Your task to perform on an android device: Go to Yahoo.com Image 0: 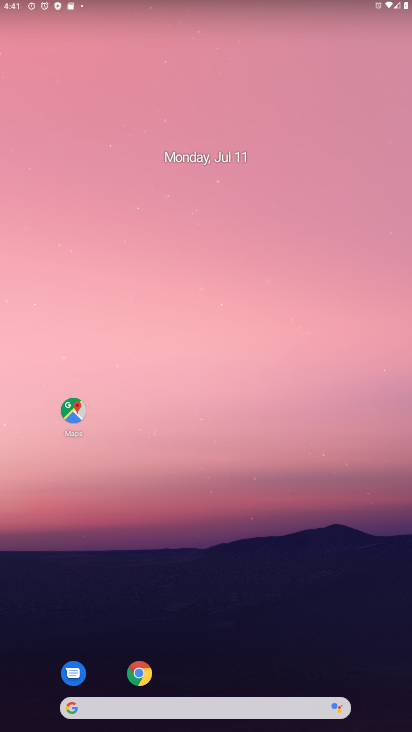
Step 0: drag from (250, 664) to (182, 176)
Your task to perform on an android device: Go to Yahoo.com Image 1: 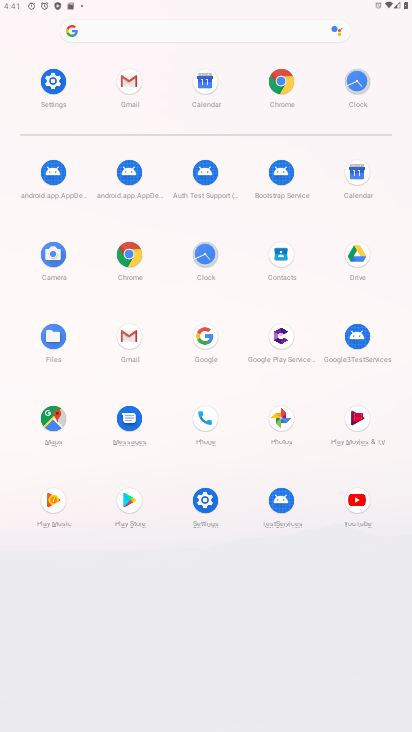
Step 1: click (123, 248)
Your task to perform on an android device: Go to Yahoo.com Image 2: 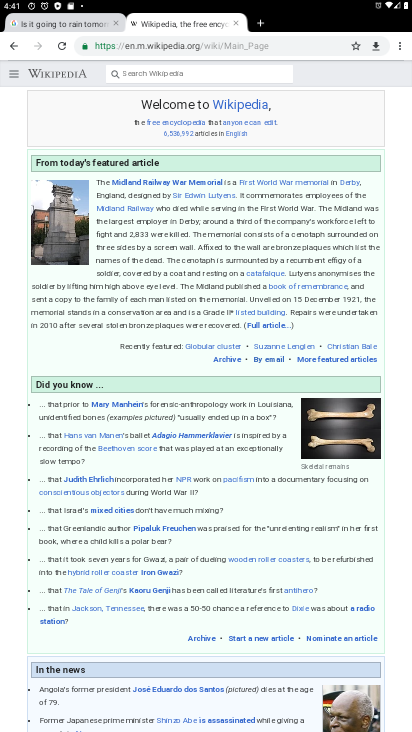
Step 2: click (135, 44)
Your task to perform on an android device: Go to Yahoo.com Image 3: 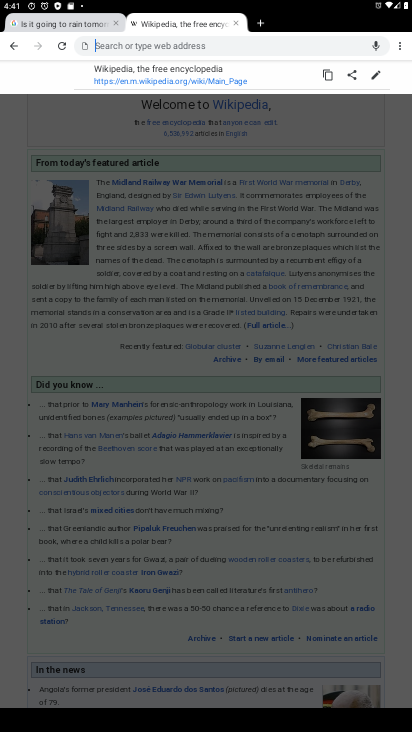
Step 3: type "Yahoo.com"
Your task to perform on an android device: Go to Yahoo.com Image 4: 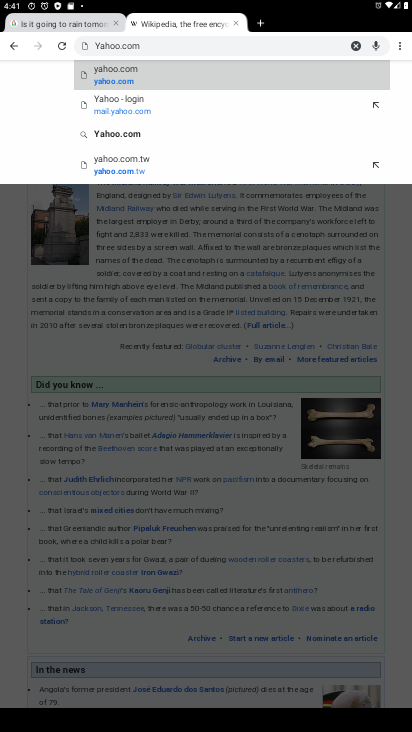
Step 4: click (108, 76)
Your task to perform on an android device: Go to Yahoo.com Image 5: 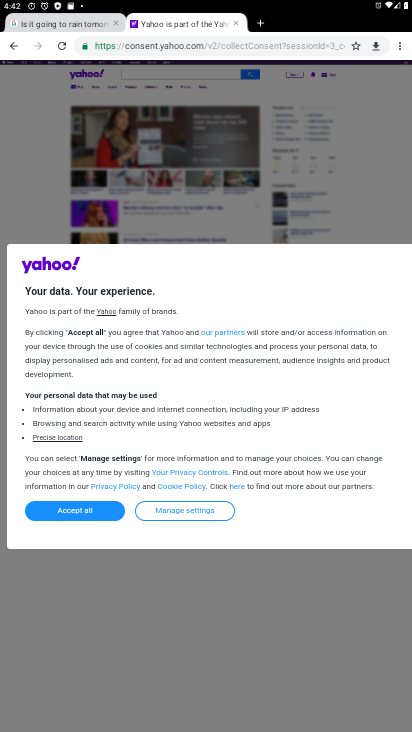
Step 5: task complete